Your task to perform on an android device: open app "McDonald's" (install if not already installed) and go to login screen Image 0: 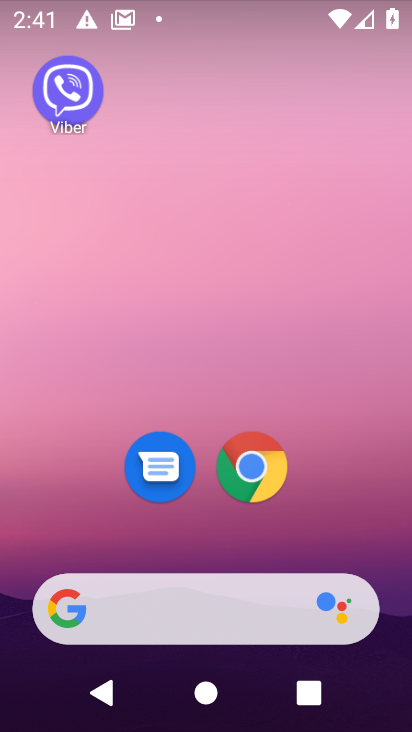
Step 0: drag from (330, 536) to (179, 12)
Your task to perform on an android device: open app "McDonald's" (install if not already installed) and go to login screen Image 1: 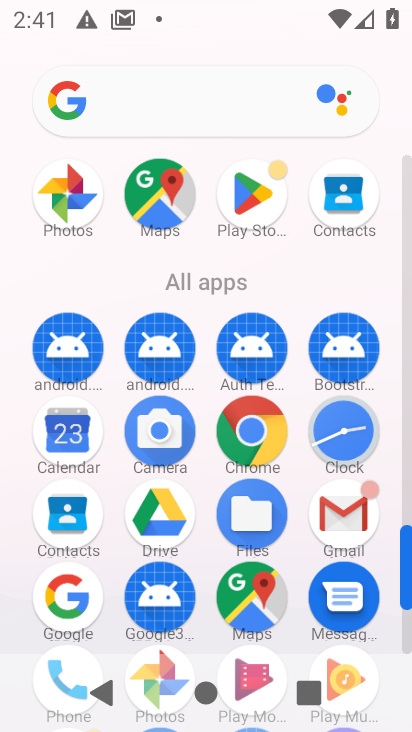
Step 1: click (239, 226)
Your task to perform on an android device: open app "McDonald's" (install if not already installed) and go to login screen Image 2: 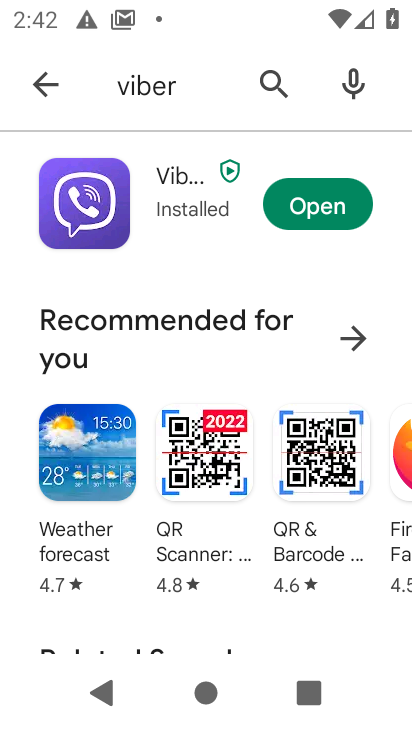
Step 2: click (283, 86)
Your task to perform on an android device: open app "McDonald's" (install if not already installed) and go to login screen Image 3: 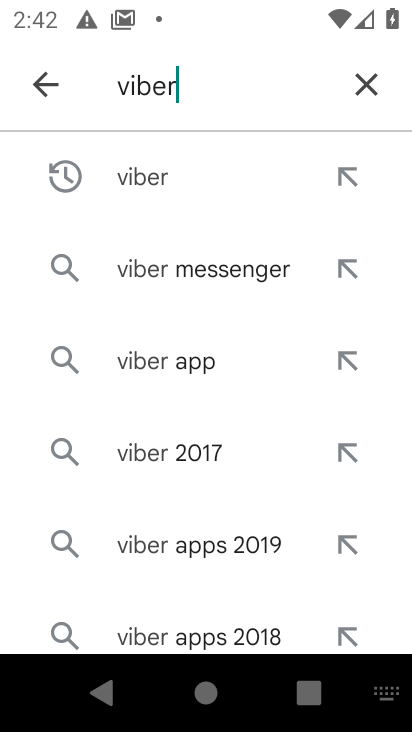
Step 3: click (356, 85)
Your task to perform on an android device: open app "McDonald's" (install if not already installed) and go to login screen Image 4: 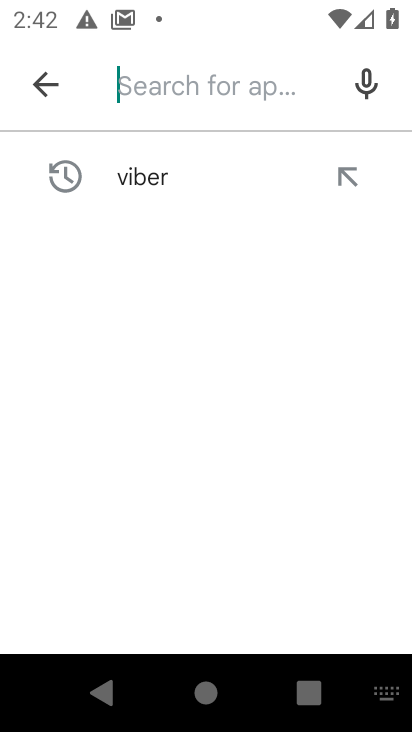
Step 4: type "mcdoland"
Your task to perform on an android device: open app "McDonald's" (install if not already installed) and go to login screen Image 5: 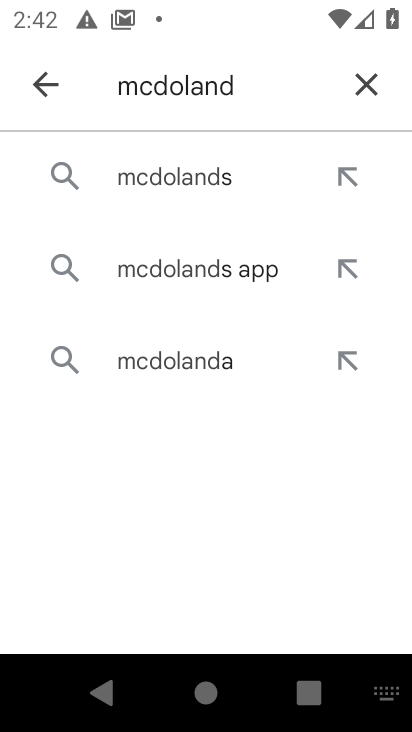
Step 5: click (248, 176)
Your task to perform on an android device: open app "McDonald's" (install if not already installed) and go to login screen Image 6: 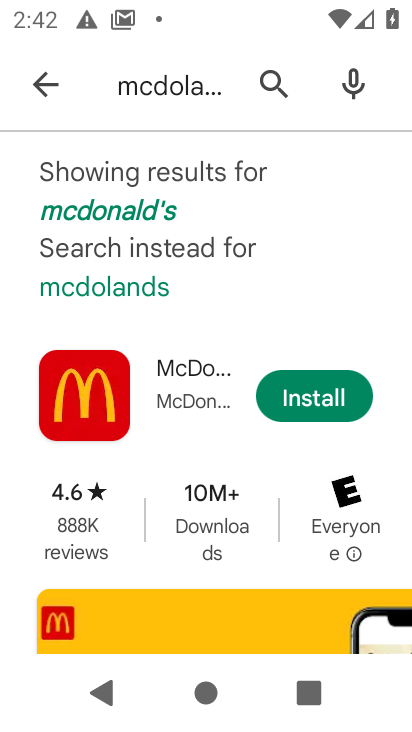
Step 6: click (334, 411)
Your task to perform on an android device: open app "McDonald's" (install if not already installed) and go to login screen Image 7: 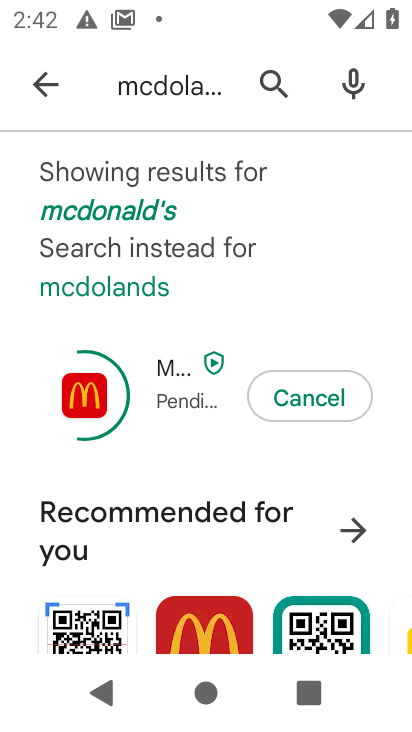
Step 7: task complete